Your task to perform on an android device: turn on sleep mode Image 0: 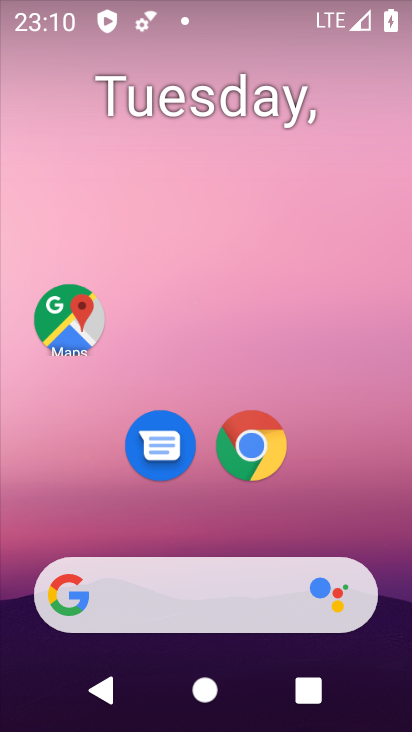
Step 0: drag from (292, 501) to (283, 70)
Your task to perform on an android device: turn on sleep mode Image 1: 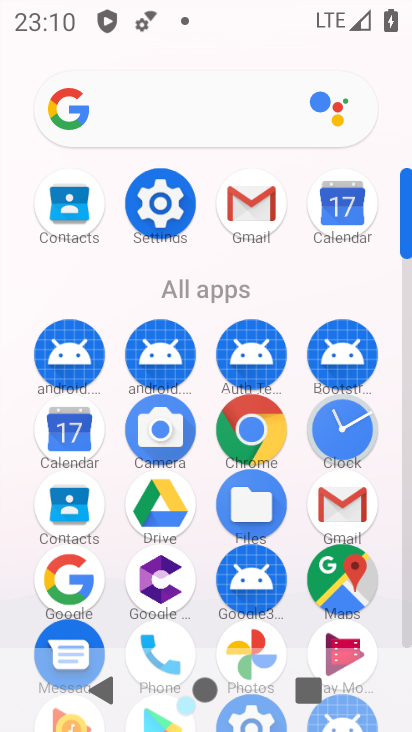
Step 1: click (161, 201)
Your task to perform on an android device: turn on sleep mode Image 2: 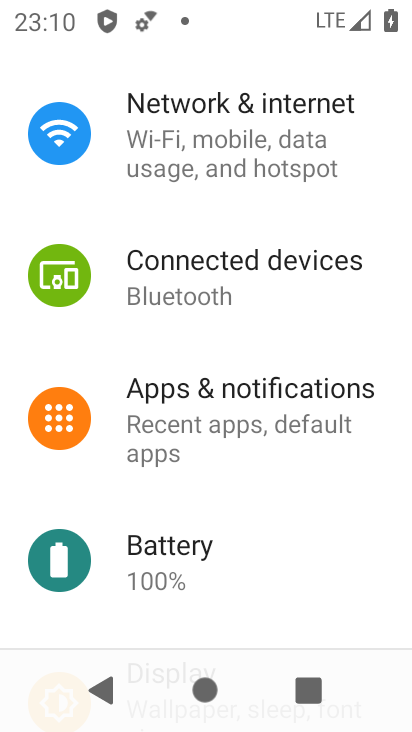
Step 2: task complete